Your task to perform on an android device: Clear all items from cart on ebay.com. Image 0: 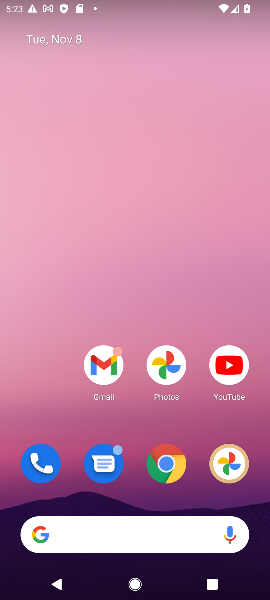
Step 0: click (173, 469)
Your task to perform on an android device: Clear all items from cart on ebay.com. Image 1: 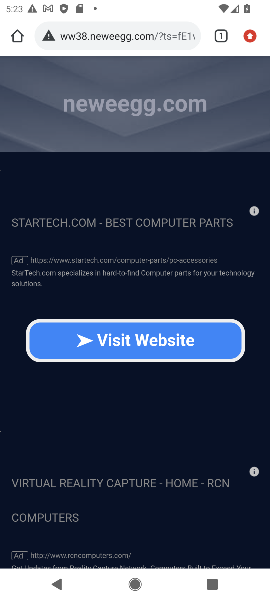
Step 1: click (131, 31)
Your task to perform on an android device: Clear all items from cart on ebay.com. Image 2: 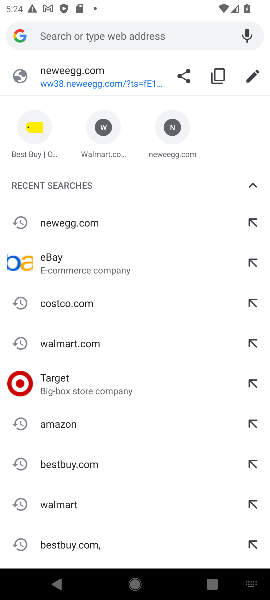
Step 2: click (77, 253)
Your task to perform on an android device: Clear all items from cart on ebay.com. Image 3: 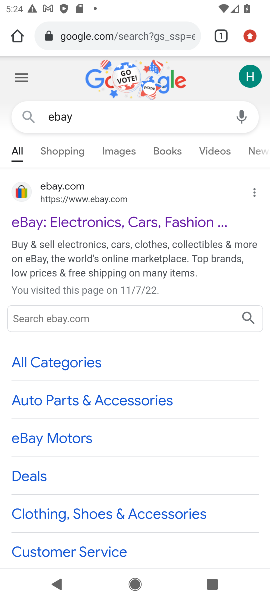
Step 3: click (64, 218)
Your task to perform on an android device: Clear all items from cart on ebay.com. Image 4: 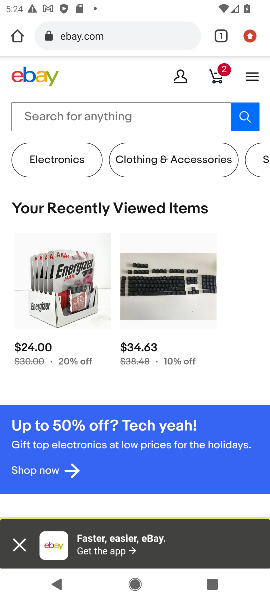
Step 4: click (214, 77)
Your task to perform on an android device: Clear all items from cart on ebay.com. Image 5: 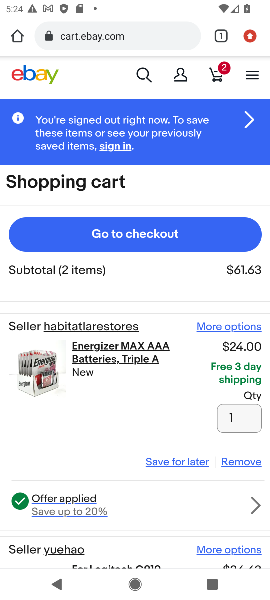
Step 5: click (237, 460)
Your task to perform on an android device: Clear all items from cart on ebay.com. Image 6: 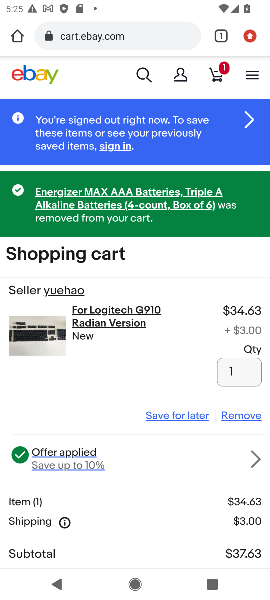
Step 6: click (246, 416)
Your task to perform on an android device: Clear all items from cart on ebay.com. Image 7: 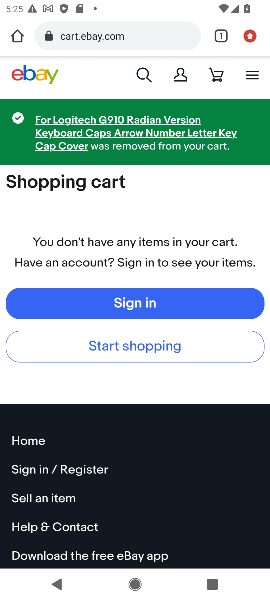
Step 7: task complete